Your task to perform on an android device: Open Google Chrome Image 0: 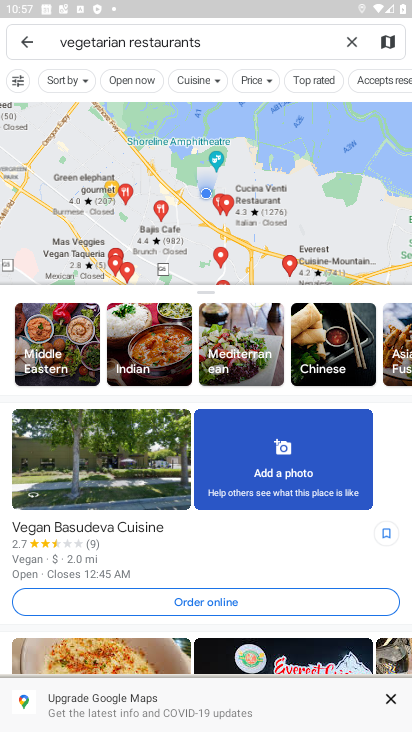
Step 0: press home button
Your task to perform on an android device: Open Google Chrome Image 1: 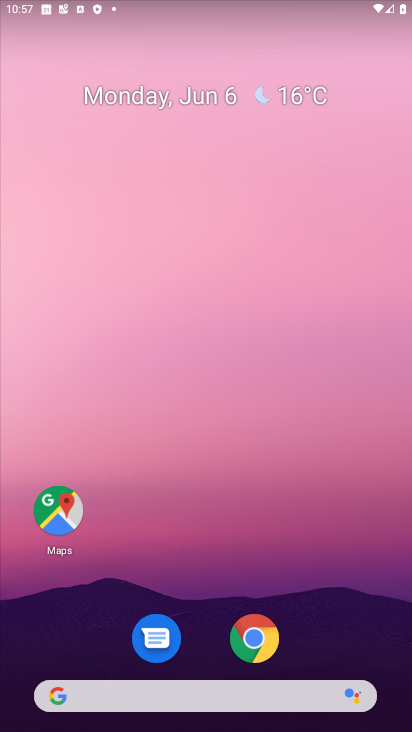
Step 1: drag from (215, 704) to (236, 122)
Your task to perform on an android device: Open Google Chrome Image 2: 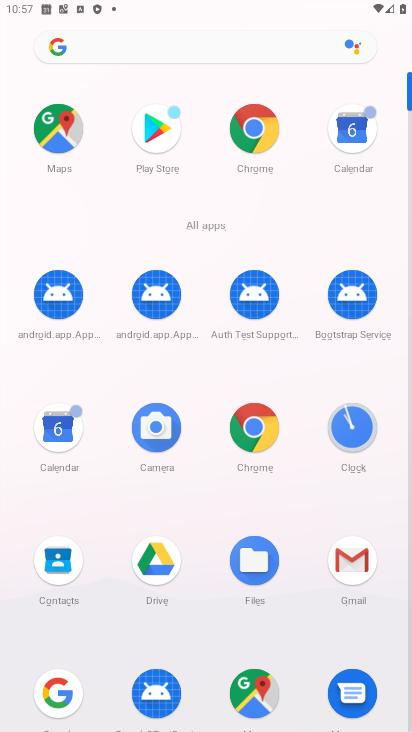
Step 2: click (247, 117)
Your task to perform on an android device: Open Google Chrome Image 3: 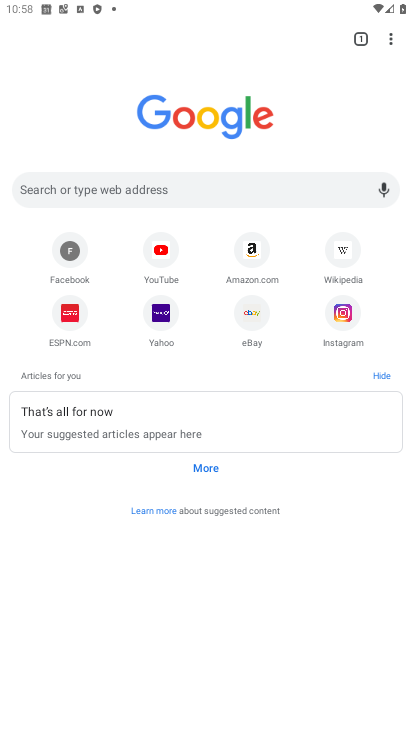
Step 3: task complete